Your task to perform on an android device: Go to eBay Image 0: 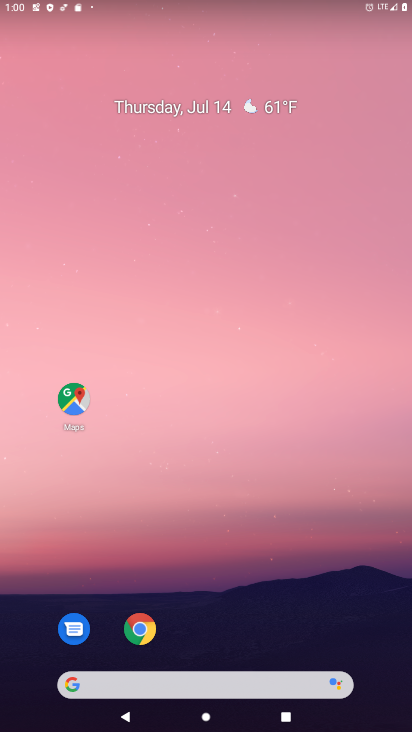
Step 0: click (140, 630)
Your task to perform on an android device: Go to eBay Image 1: 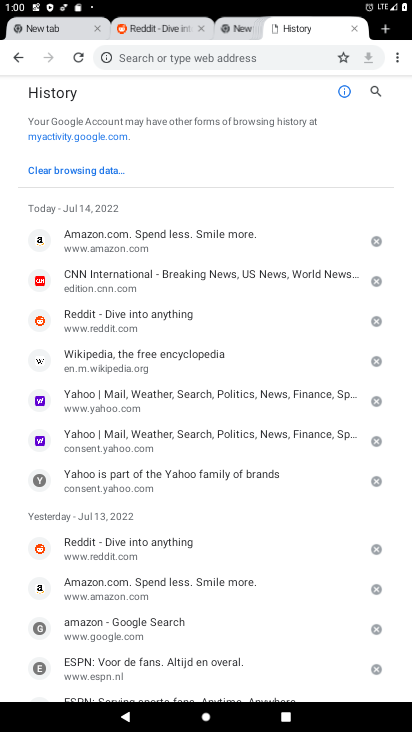
Step 1: click (399, 58)
Your task to perform on an android device: Go to eBay Image 2: 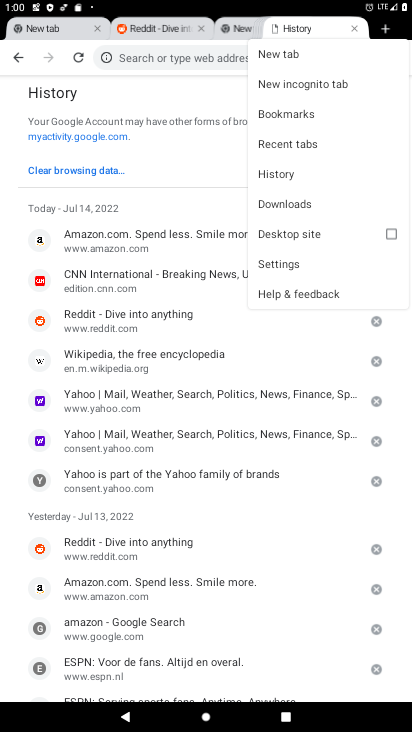
Step 2: click (275, 48)
Your task to perform on an android device: Go to eBay Image 3: 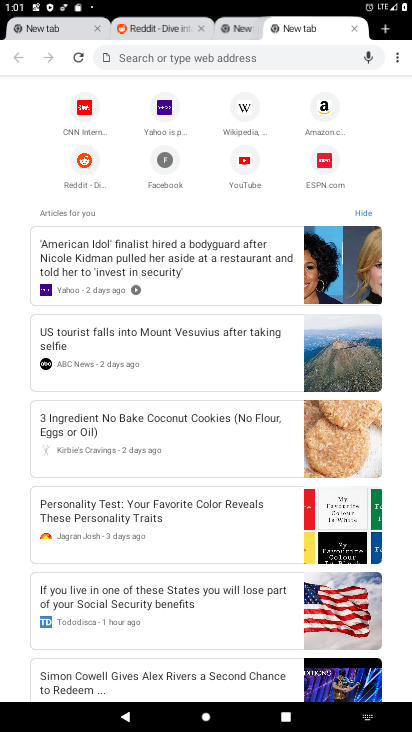
Step 3: type "ebay"
Your task to perform on an android device: Go to eBay Image 4: 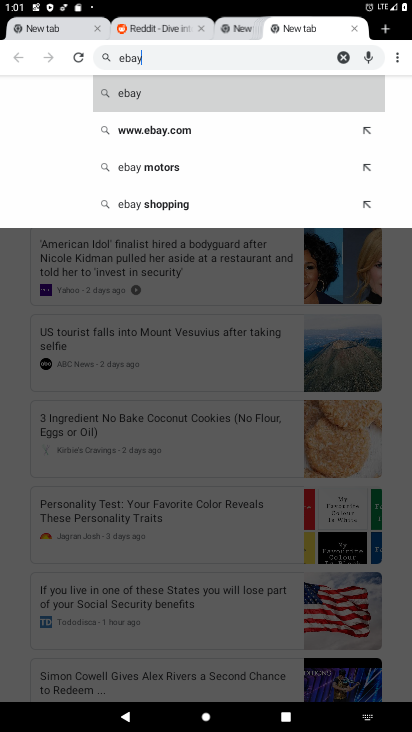
Step 4: click (132, 95)
Your task to perform on an android device: Go to eBay Image 5: 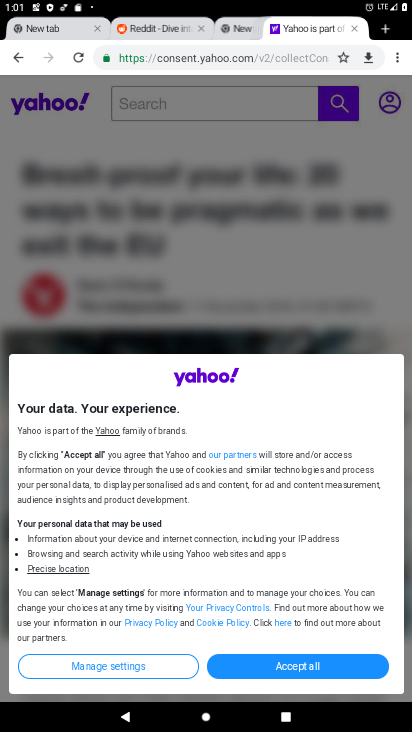
Step 5: click (273, 667)
Your task to perform on an android device: Go to eBay Image 6: 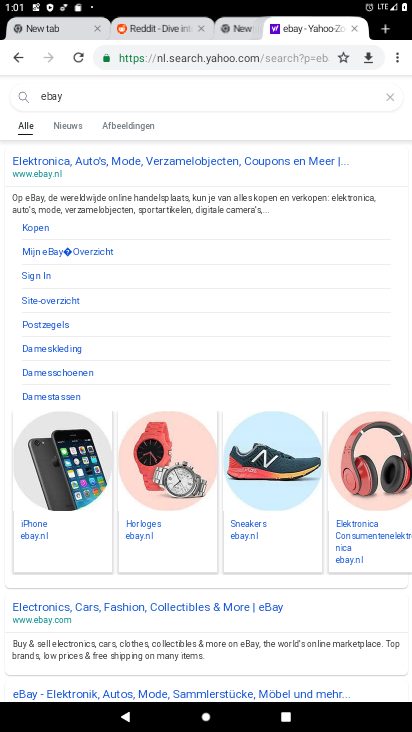
Step 6: task complete